Your task to perform on an android device: toggle pop-ups in chrome Image 0: 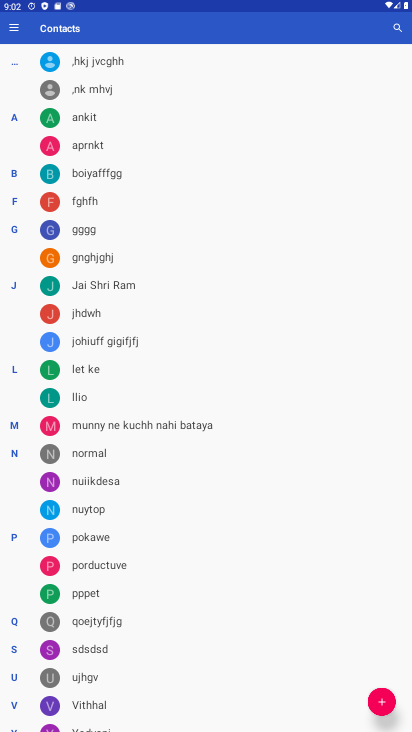
Step 0: press home button
Your task to perform on an android device: toggle pop-ups in chrome Image 1: 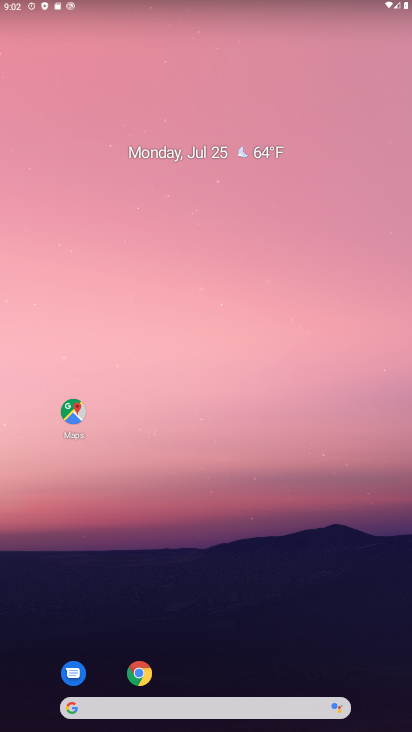
Step 1: click (136, 664)
Your task to perform on an android device: toggle pop-ups in chrome Image 2: 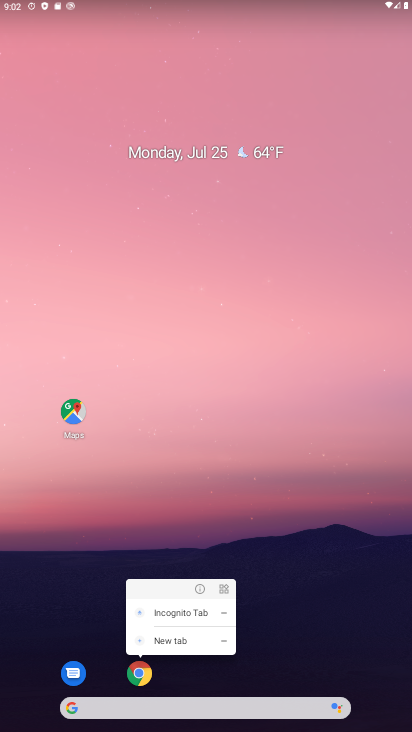
Step 2: click (140, 672)
Your task to perform on an android device: toggle pop-ups in chrome Image 3: 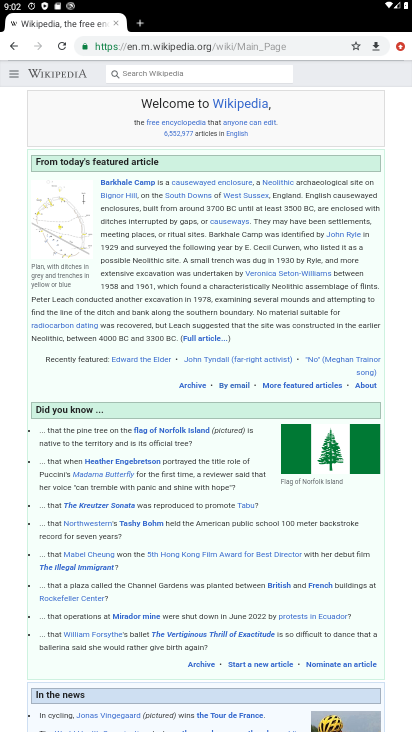
Step 3: click (398, 41)
Your task to perform on an android device: toggle pop-ups in chrome Image 4: 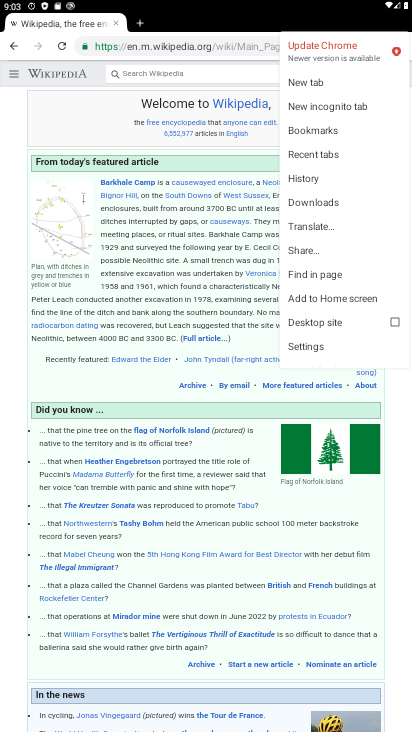
Step 4: click (324, 344)
Your task to perform on an android device: toggle pop-ups in chrome Image 5: 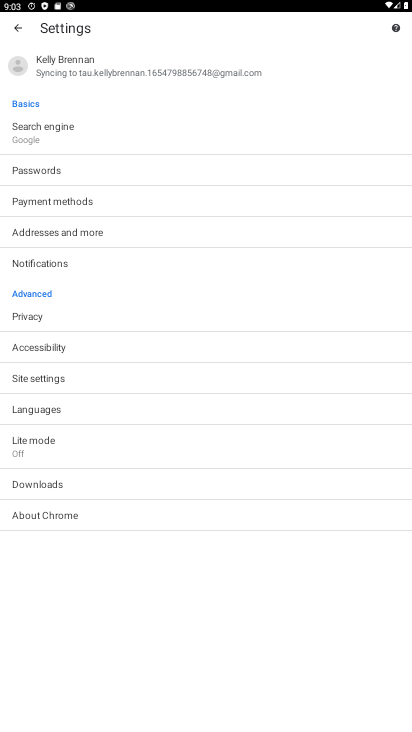
Step 5: click (79, 372)
Your task to perform on an android device: toggle pop-ups in chrome Image 6: 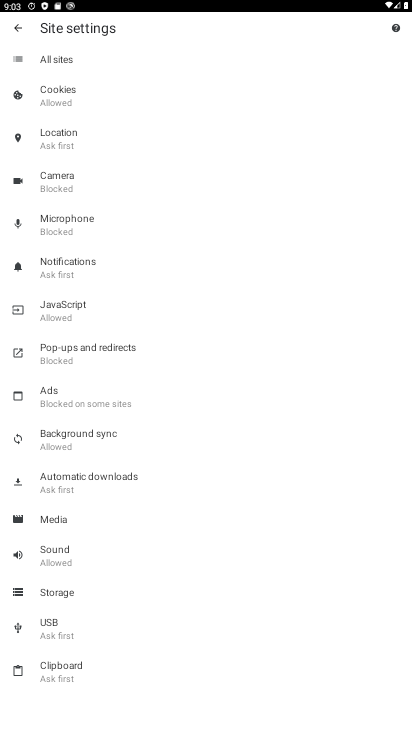
Step 6: click (106, 349)
Your task to perform on an android device: toggle pop-ups in chrome Image 7: 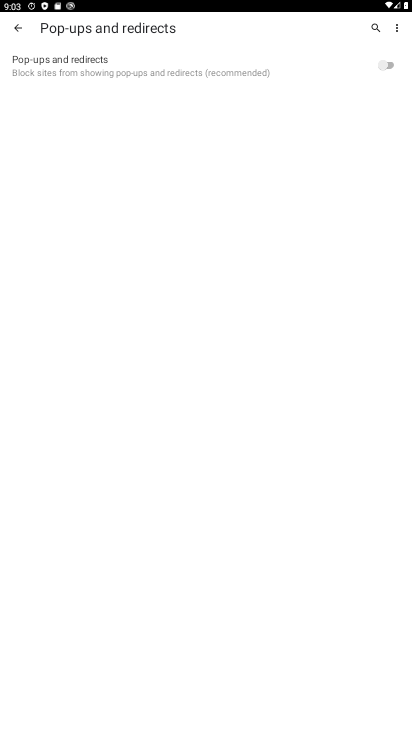
Step 7: click (393, 60)
Your task to perform on an android device: toggle pop-ups in chrome Image 8: 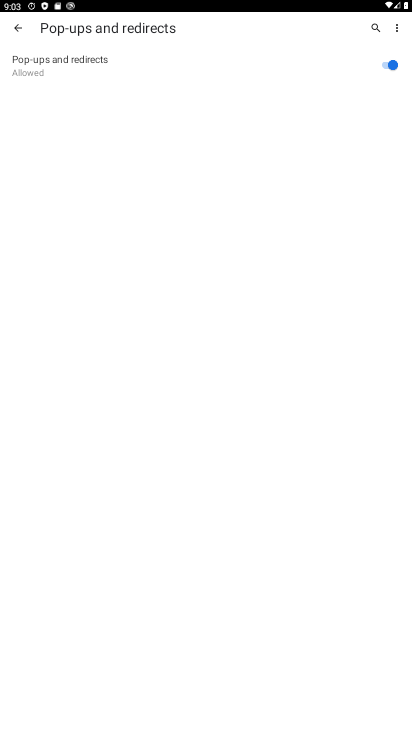
Step 8: task complete